Your task to perform on an android device: Go to Reddit.com Image 0: 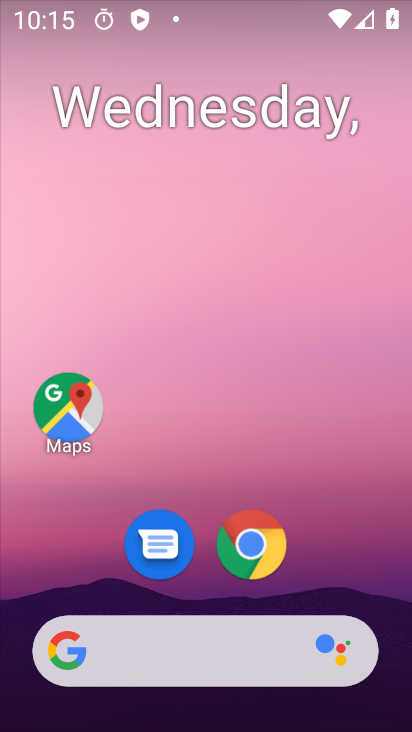
Step 0: drag from (307, 691) to (384, 129)
Your task to perform on an android device: Go to Reddit.com Image 1: 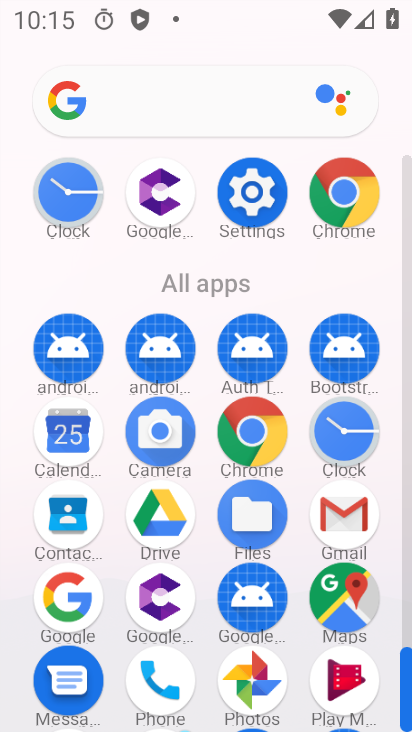
Step 1: click (334, 208)
Your task to perform on an android device: Go to Reddit.com Image 2: 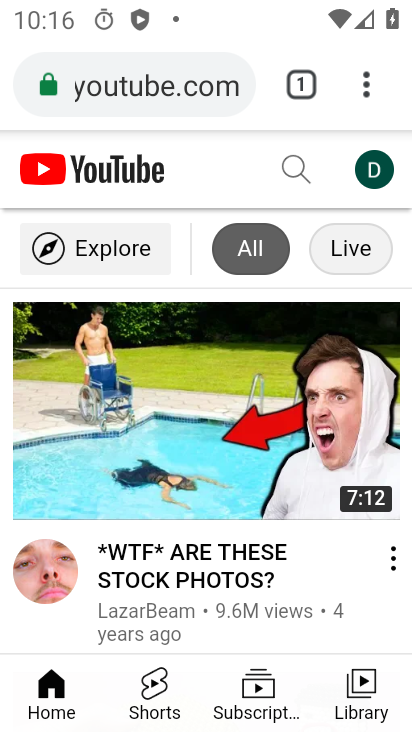
Step 2: click (137, 97)
Your task to perform on an android device: Go to Reddit.com Image 3: 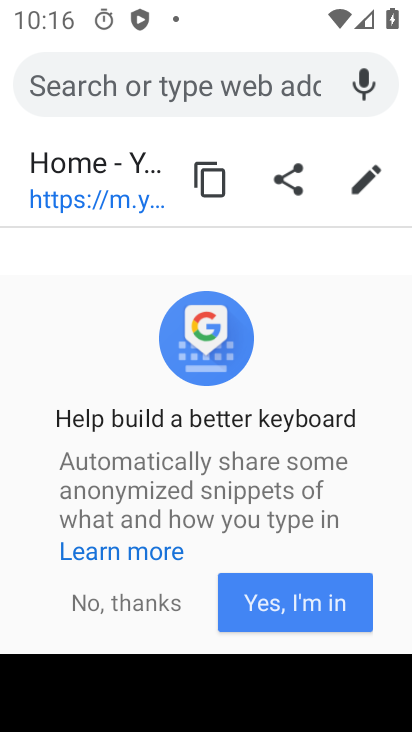
Step 3: click (136, 610)
Your task to perform on an android device: Go to Reddit.com Image 4: 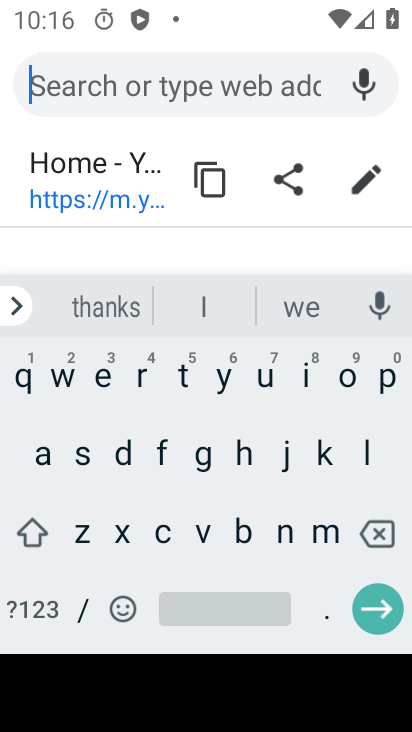
Step 4: click (135, 388)
Your task to perform on an android device: Go to Reddit.com Image 5: 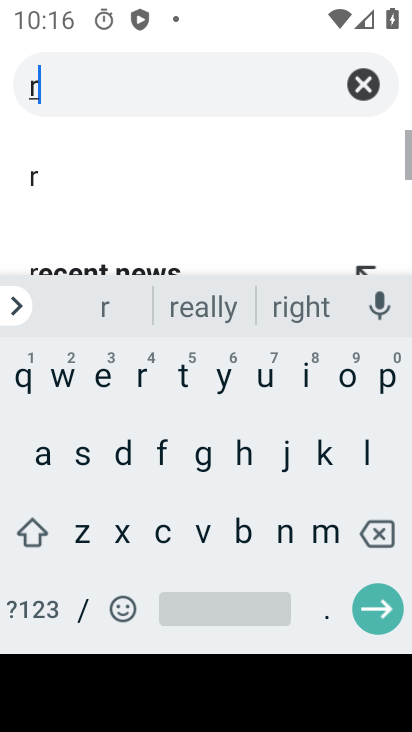
Step 5: click (95, 381)
Your task to perform on an android device: Go to Reddit.com Image 6: 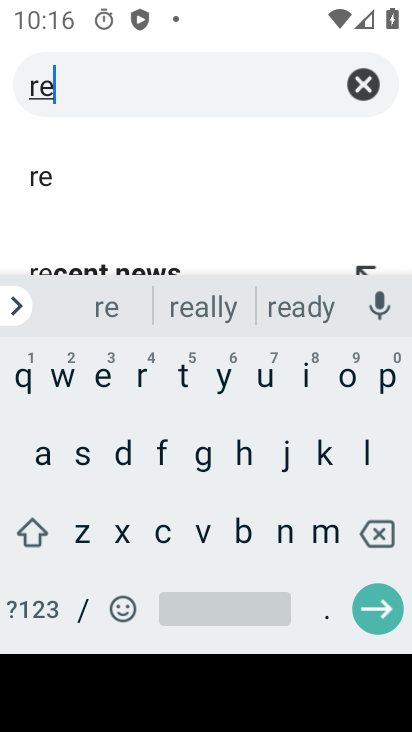
Step 6: click (120, 452)
Your task to perform on an android device: Go to Reddit.com Image 7: 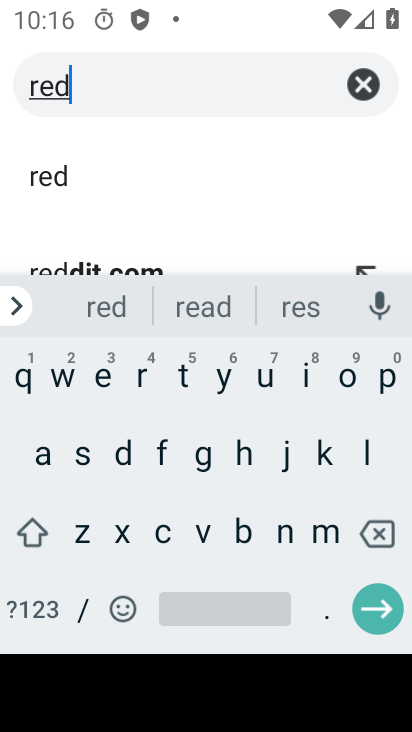
Step 7: click (143, 271)
Your task to perform on an android device: Go to Reddit.com Image 8: 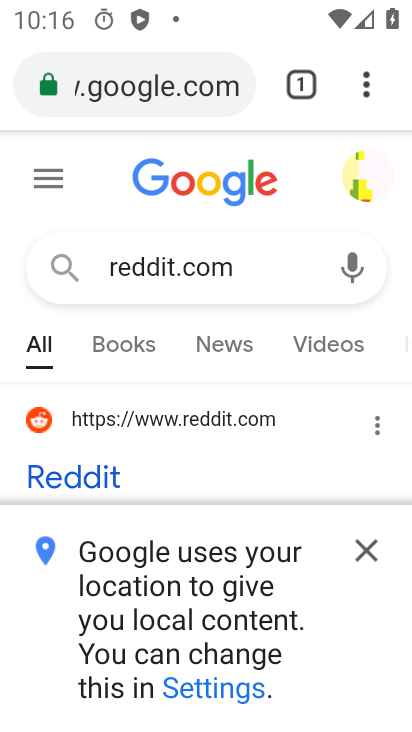
Step 8: click (357, 548)
Your task to perform on an android device: Go to Reddit.com Image 9: 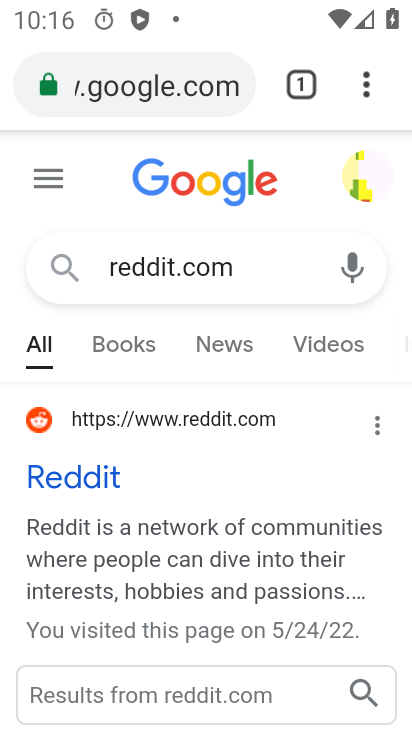
Step 9: click (82, 479)
Your task to perform on an android device: Go to Reddit.com Image 10: 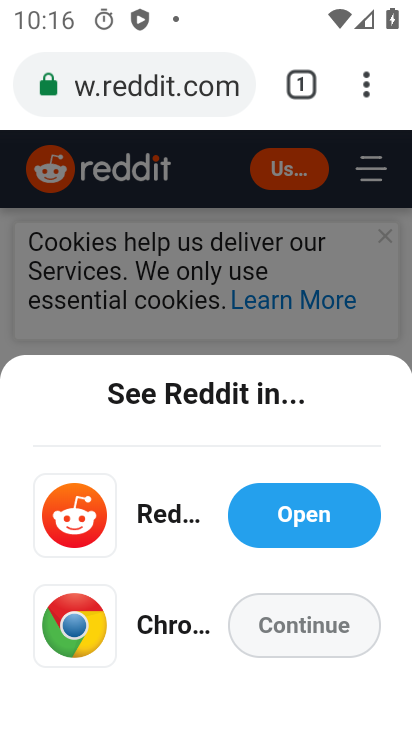
Step 10: click (267, 630)
Your task to perform on an android device: Go to Reddit.com Image 11: 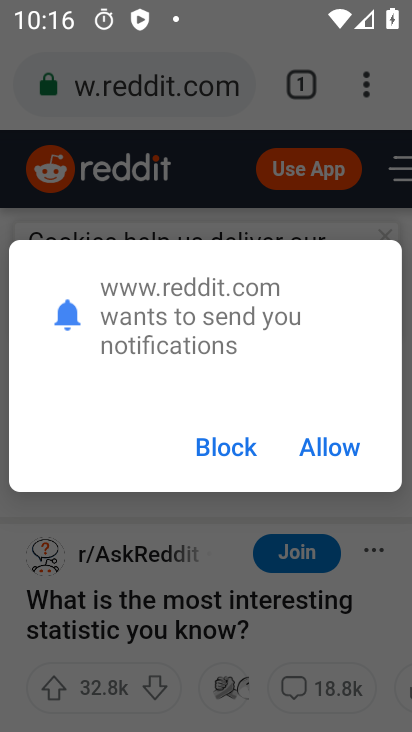
Step 11: click (241, 444)
Your task to perform on an android device: Go to Reddit.com Image 12: 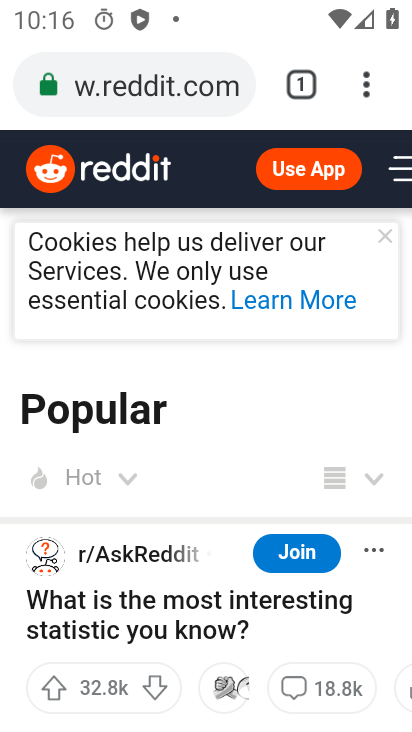
Step 12: task complete